Your task to perform on an android device: open app "Google Chrome" (install if not already installed) Image 0: 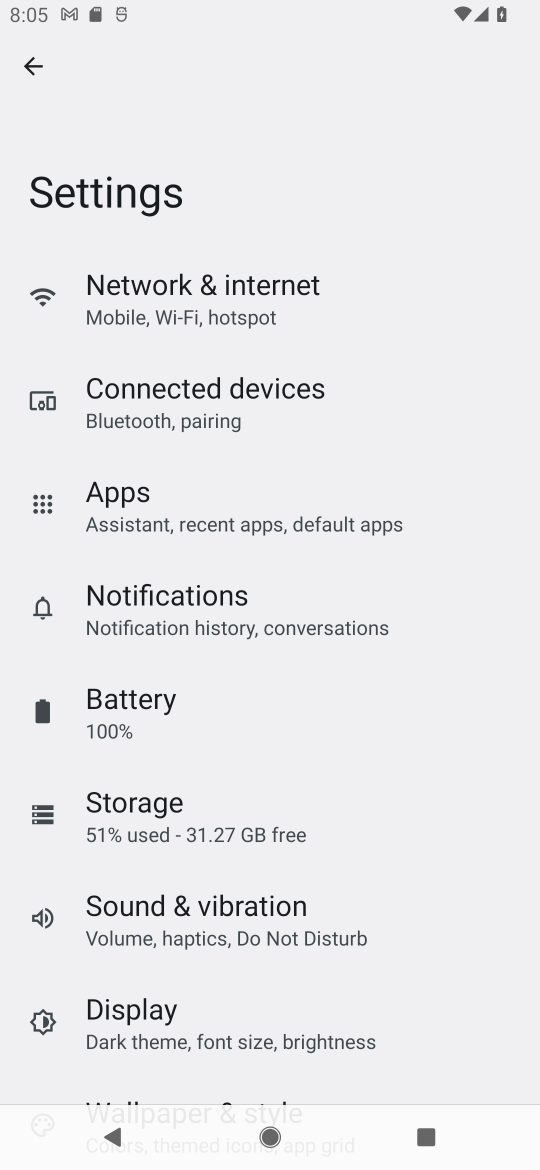
Step 0: press home button
Your task to perform on an android device: open app "Google Chrome" (install if not already installed) Image 1: 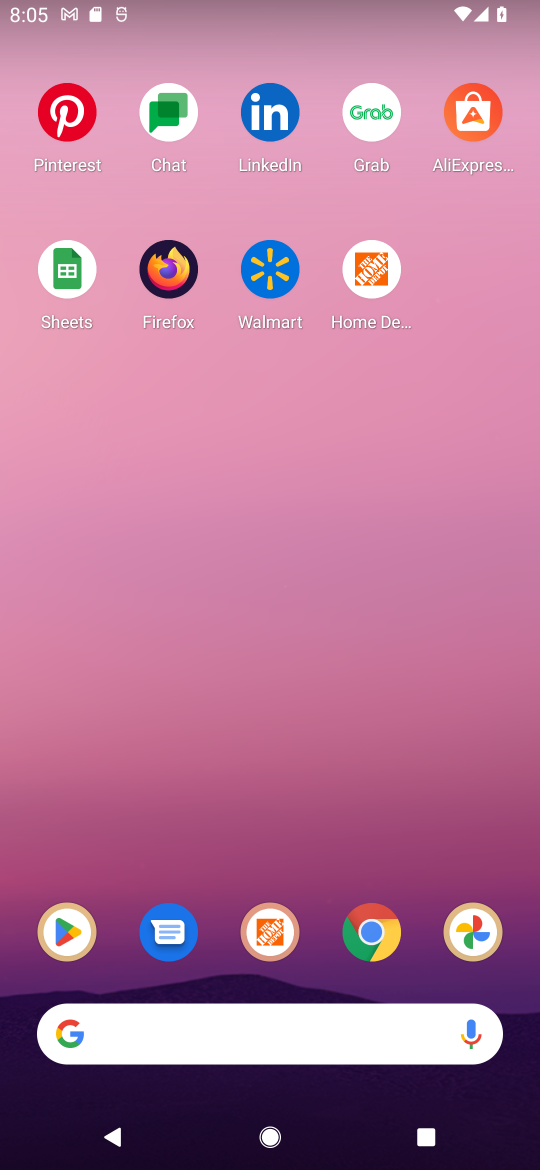
Step 1: click (379, 928)
Your task to perform on an android device: open app "Google Chrome" (install if not already installed) Image 2: 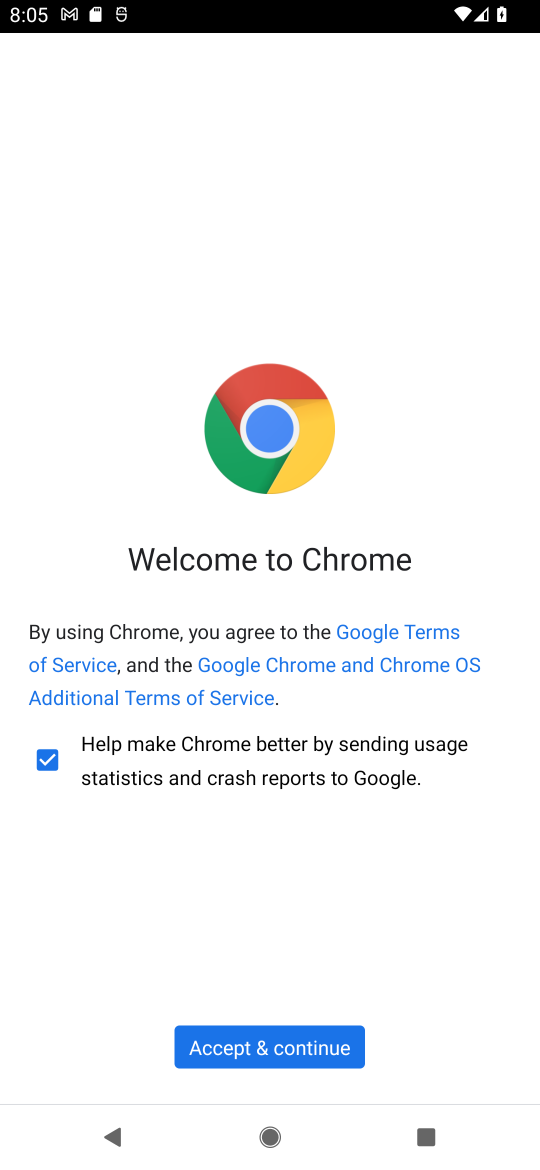
Step 2: click (268, 1049)
Your task to perform on an android device: open app "Google Chrome" (install if not already installed) Image 3: 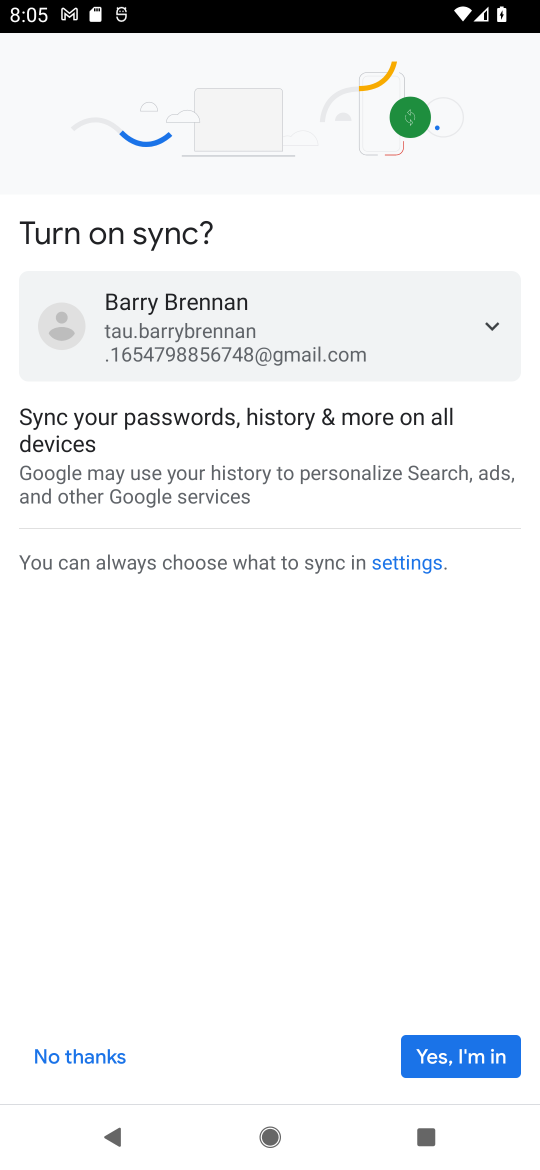
Step 3: click (466, 1050)
Your task to perform on an android device: open app "Google Chrome" (install if not already installed) Image 4: 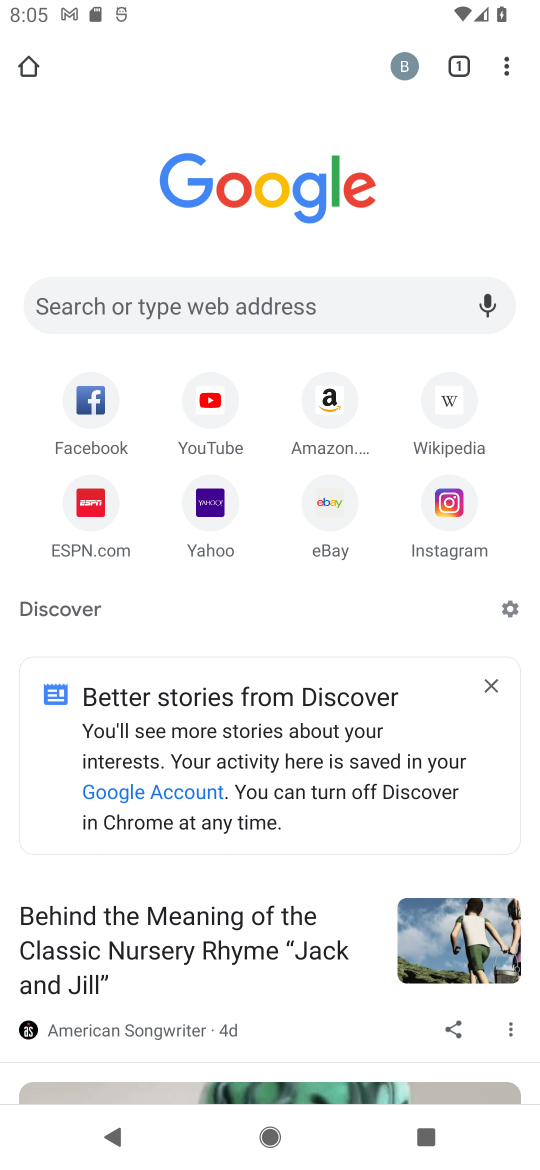
Step 4: task complete